Your task to perform on an android device: turn on showing notifications on the lock screen Image 0: 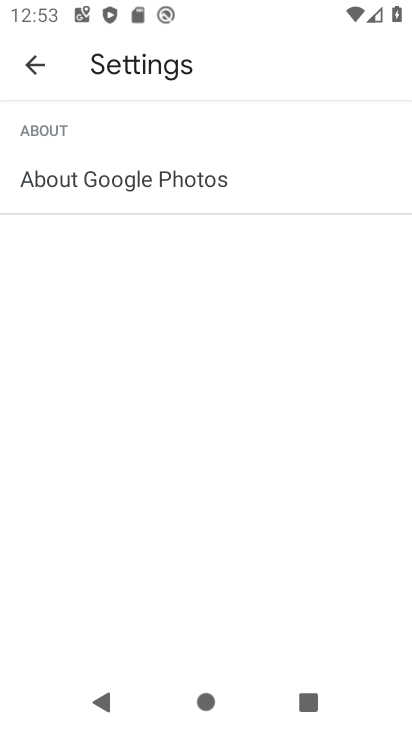
Step 0: press home button
Your task to perform on an android device: turn on showing notifications on the lock screen Image 1: 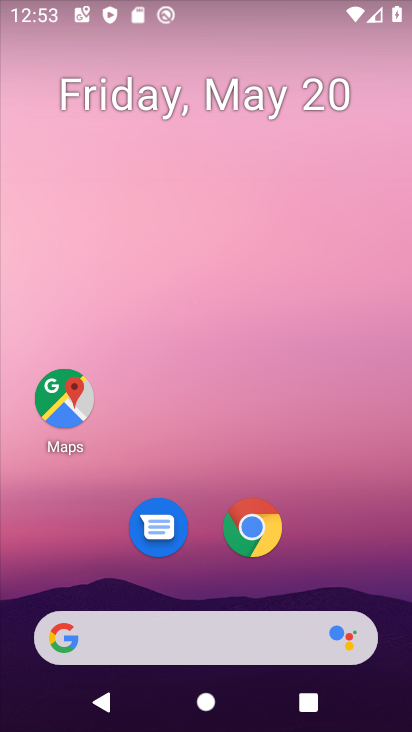
Step 1: drag from (241, 468) to (249, 44)
Your task to perform on an android device: turn on showing notifications on the lock screen Image 2: 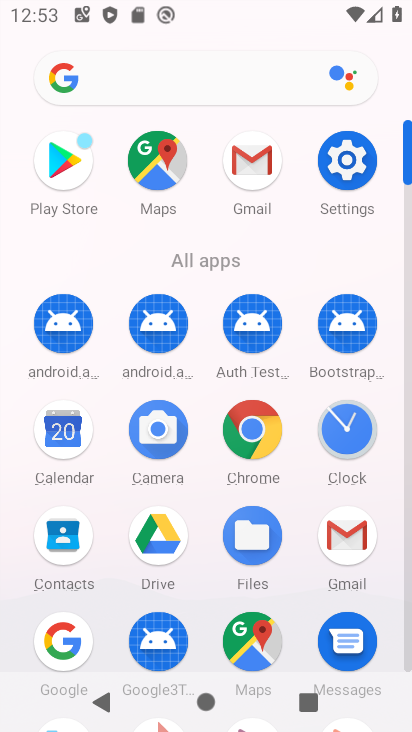
Step 2: click (339, 167)
Your task to perform on an android device: turn on showing notifications on the lock screen Image 3: 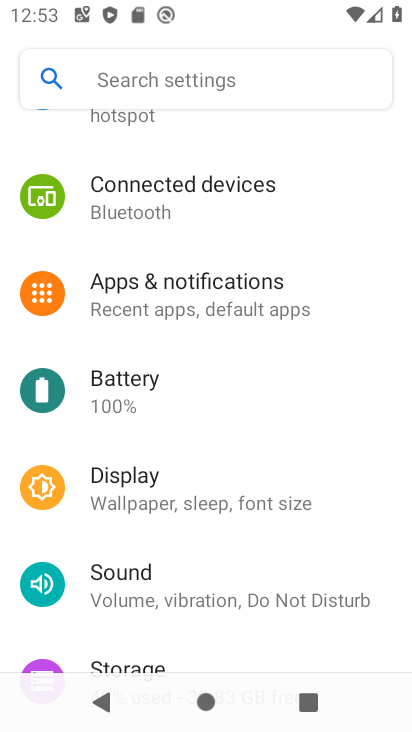
Step 3: click (247, 280)
Your task to perform on an android device: turn on showing notifications on the lock screen Image 4: 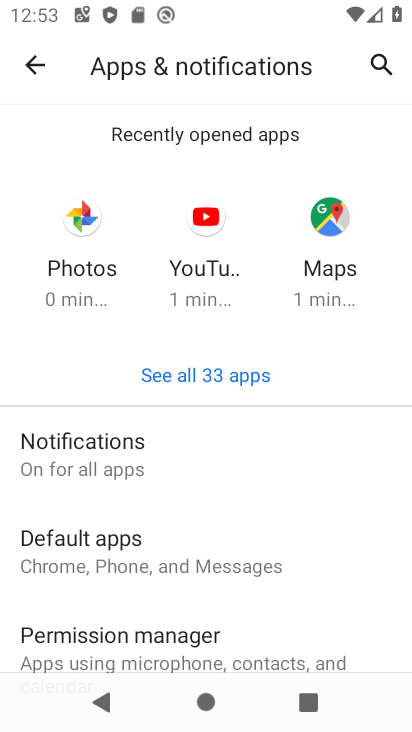
Step 4: click (211, 462)
Your task to perform on an android device: turn on showing notifications on the lock screen Image 5: 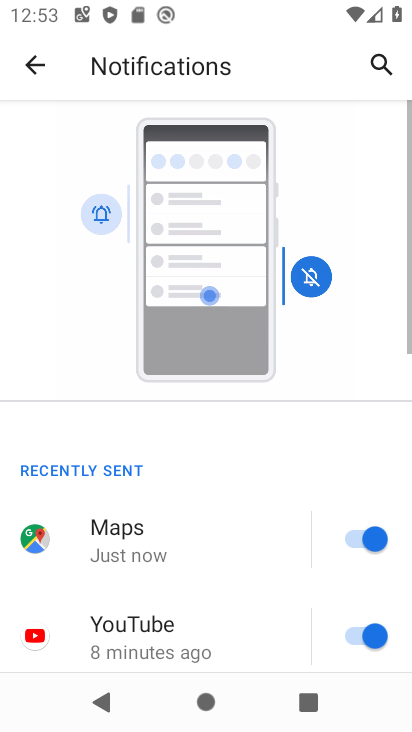
Step 5: task complete